Your task to perform on an android device: Is it going to rain tomorrow? Image 0: 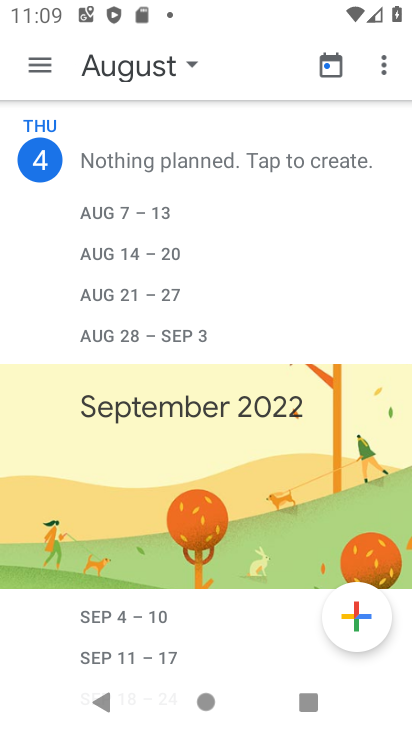
Step 0: press home button
Your task to perform on an android device: Is it going to rain tomorrow? Image 1: 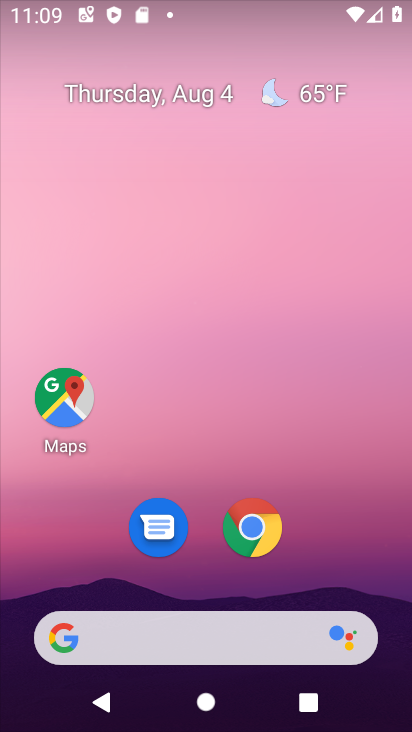
Step 1: click (244, 655)
Your task to perform on an android device: Is it going to rain tomorrow? Image 2: 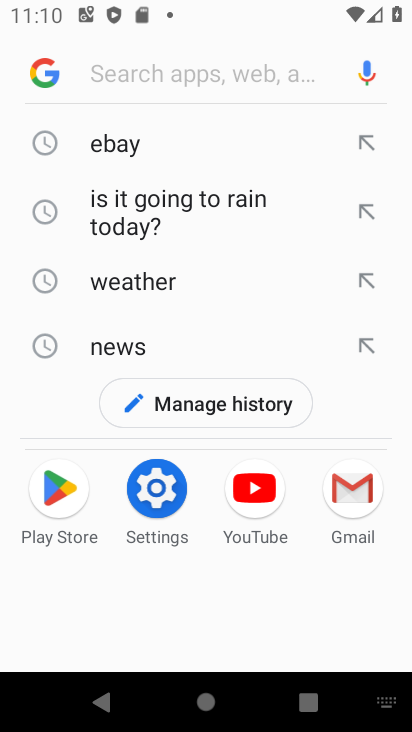
Step 2: type "Is it going to rain tomorrow?"
Your task to perform on an android device: Is it going to rain tomorrow? Image 3: 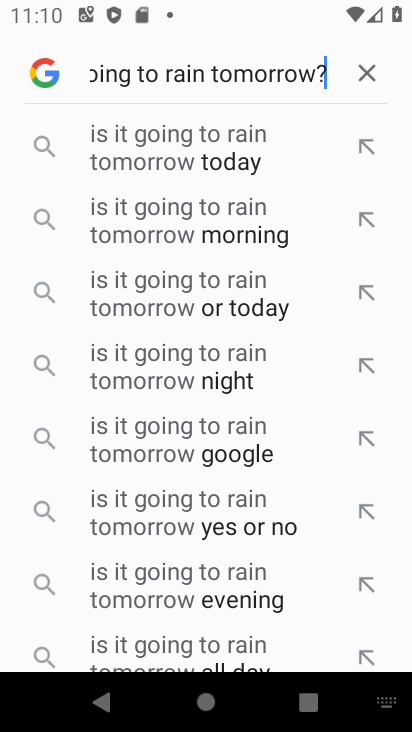
Step 3: press enter
Your task to perform on an android device: Is it going to rain tomorrow? Image 4: 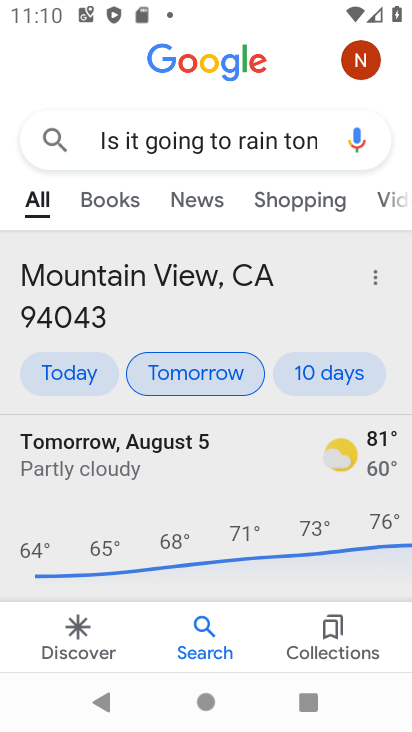
Step 4: task complete